Your task to perform on an android device: turn off data saver in the chrome app Image 0: 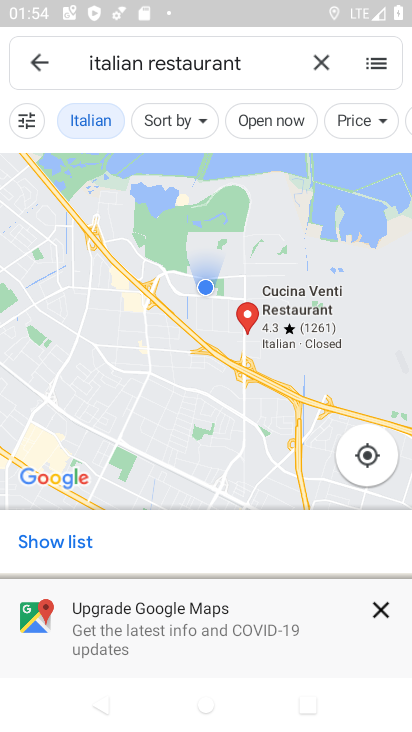
Step 0: click (52, 50)
Your task to perform on an android device: turn off data saver in the chrome app Image 1: 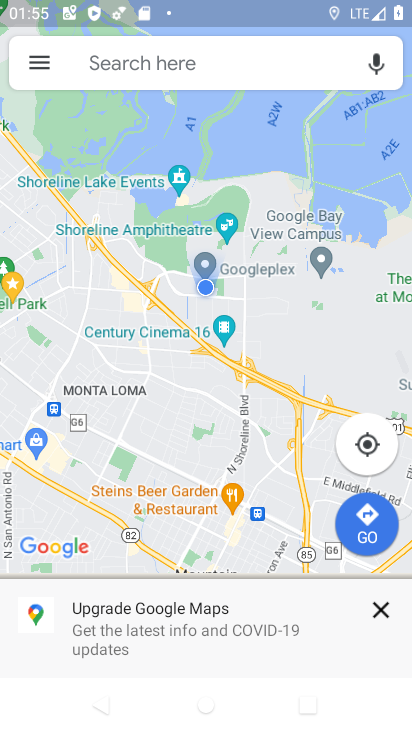
Step 1: press back button
Your task to perform on an android device: turn off data saver in the chrome app Image 2: 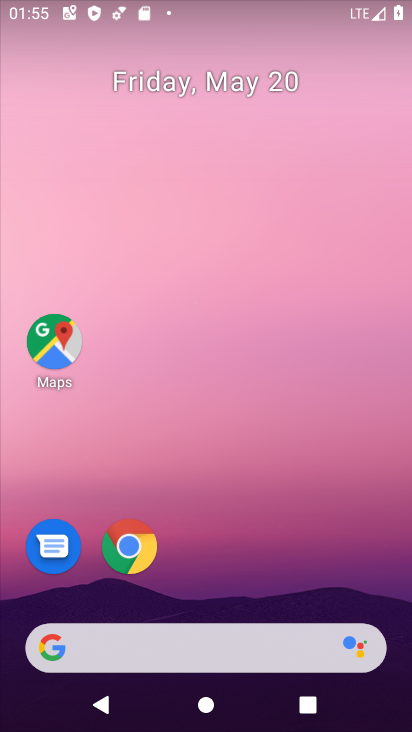
Step 2: click (118, 567)
Your task to perform on an android device: turn off data saver in the chrome app Image 3: 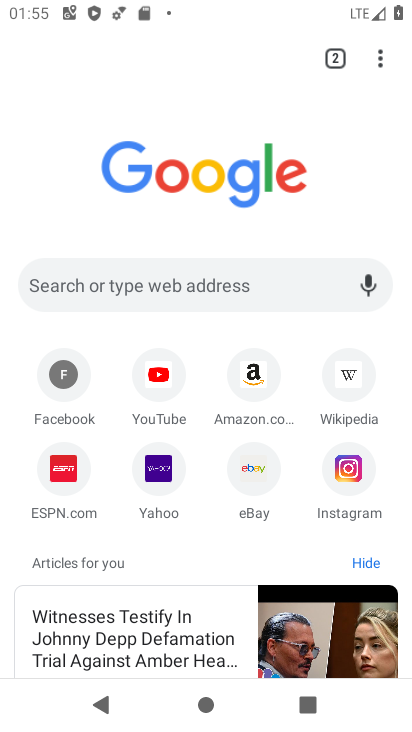
Step 3: click (384, 58)
Your task to perform on an android device: turn off data saver in the chrome app Image 4: 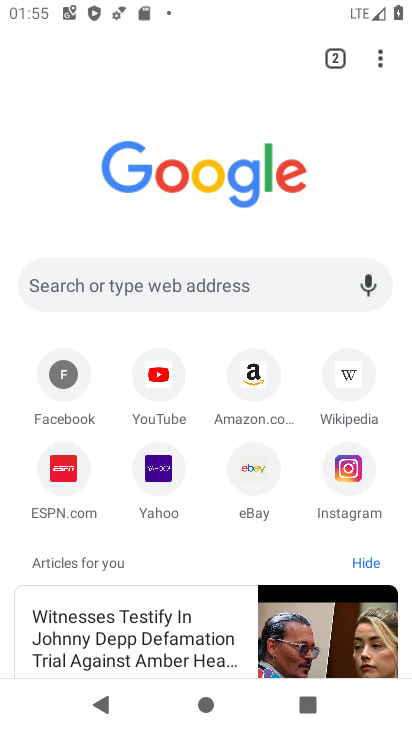
Step 4: drag from (375, 69) to (153, 497)
Your task to perform on an android device: turn off data saver in the chrome app Image 5: 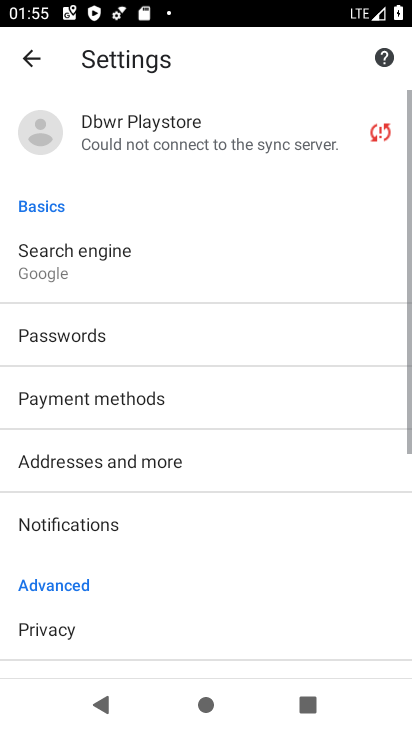
Step 5: drag from (152, 496) to (130, 122)
Your task to perform on an android device: turn off data saver in the chrome app Image 6: 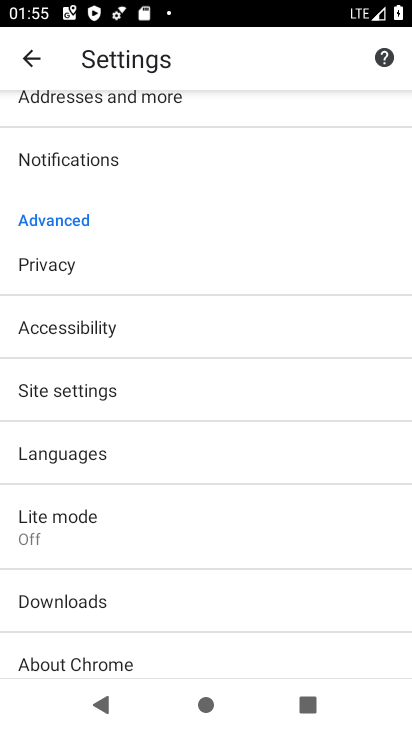
Step 6: click (116, 513)
Your task to perform on an android device: turn off data saver in the chrome app Image 7: 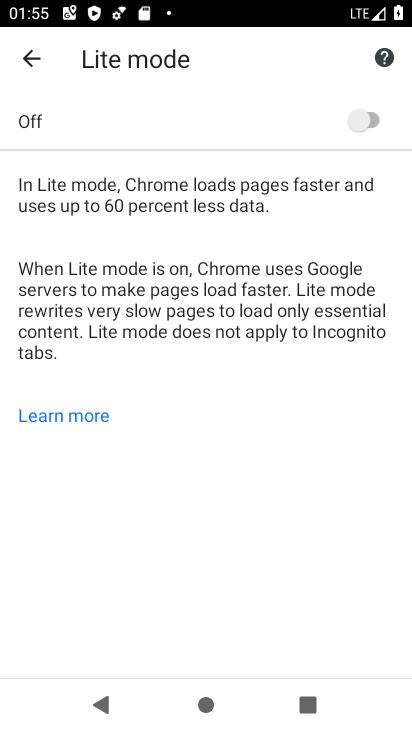
Step 7: task complete